Your task to perform on an android device: Go to Yahoo.com Image 0: 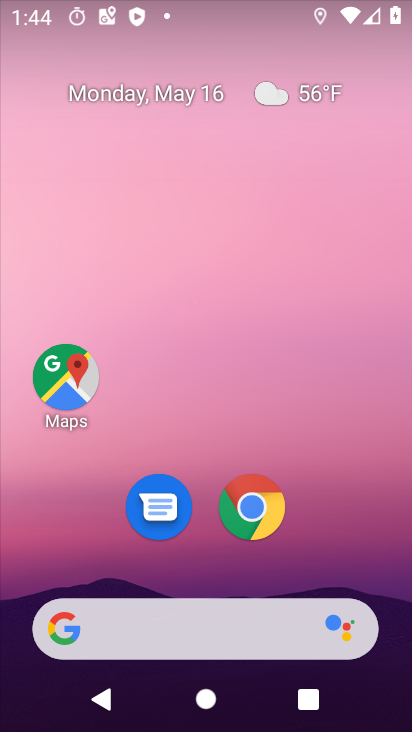
Step 0: click (201, 561)
Your task to perform on an android device: Go to Yahoo.com Image 1: 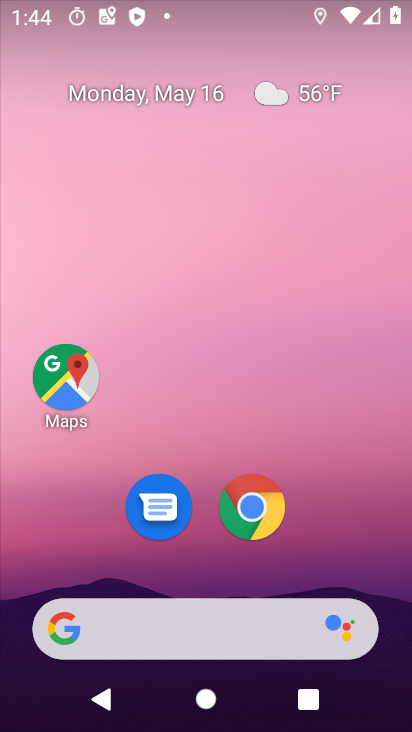
Step 1: click (259, 512)
Your task to perform on an android device: Go to Yahoo.com Image 2: 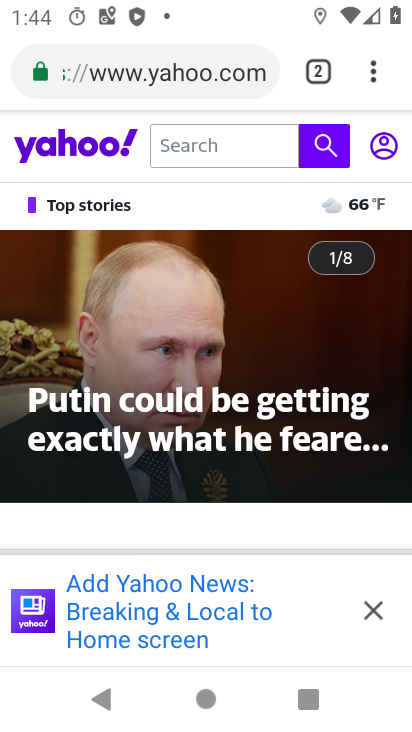
Step 2: task complete